Your task to perform on an android device: change alarm snooze length Image 0: 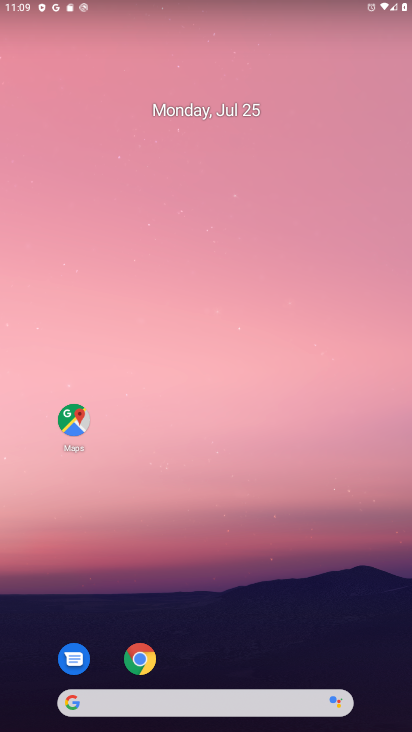
Step 0: drag from (238, 619) to (140, 38)
Your task to perform on an android device: change alarm snooze length Image 1: 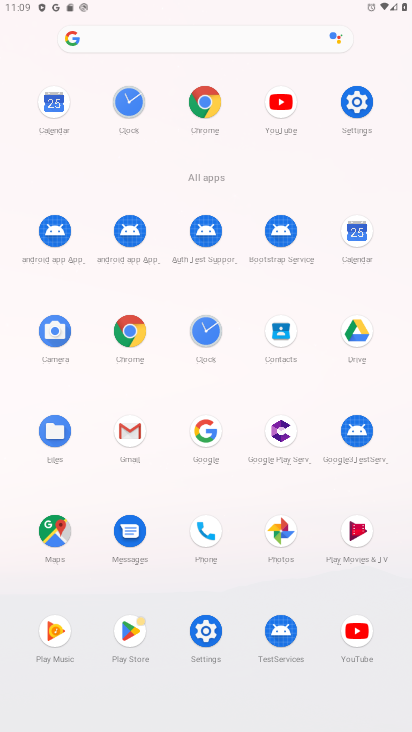
Step 1: click (211, 327)
Your task to perform on an android device: change alarm snooze length Image 2: 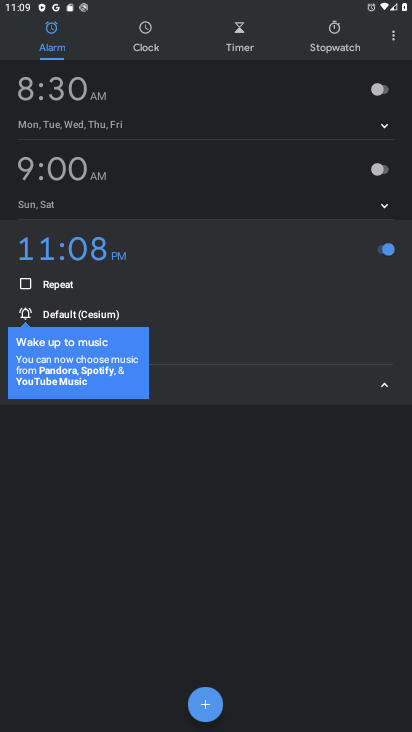
Step 2: click (395, 40)
Your task to perform on an android device: change alarm snooze length Image 3: 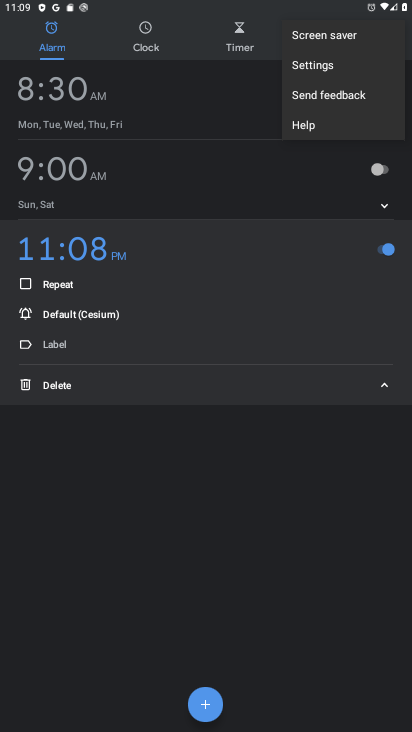
Step 3: click (312, 66)
Your task to perform on an android device: change alarm snooze length Image 4: 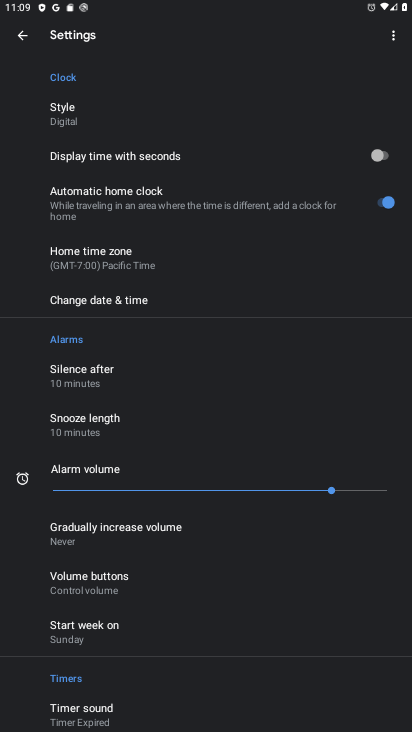
Step 4: click (97, 415)
Your task to perform on an android device: change alarm snooze length Image 5: 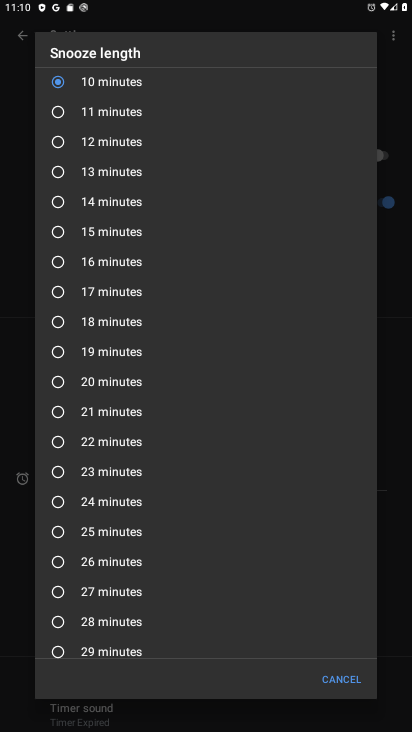
Step 5: click (56, 286)
Your task to perform on an android device: change alarm snooze length Image 6: 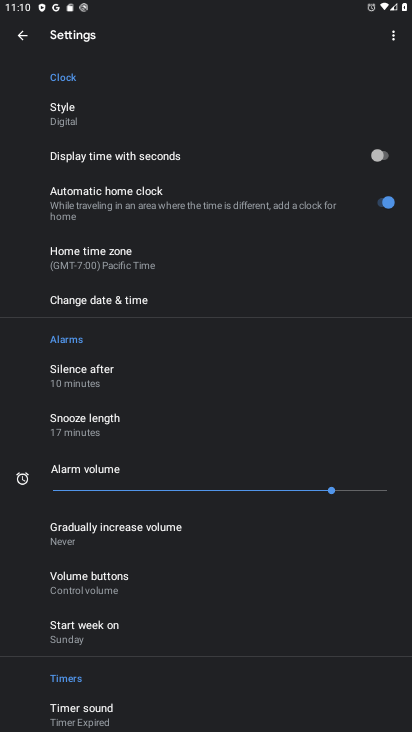
Step 6: task complete